Your task to perform on an android device: turn vacation reply on in the gmail app Image 0: 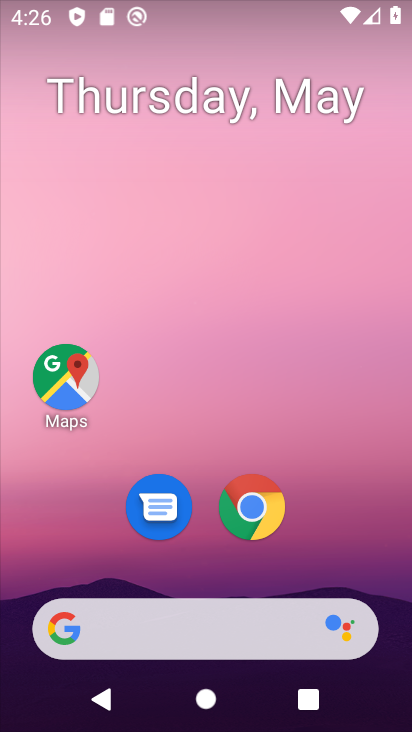
Step 0: drag from (336, 632) to (160, 192)
Your task to perform on an android device: turn vacation reply on in the gmail app Image 1: 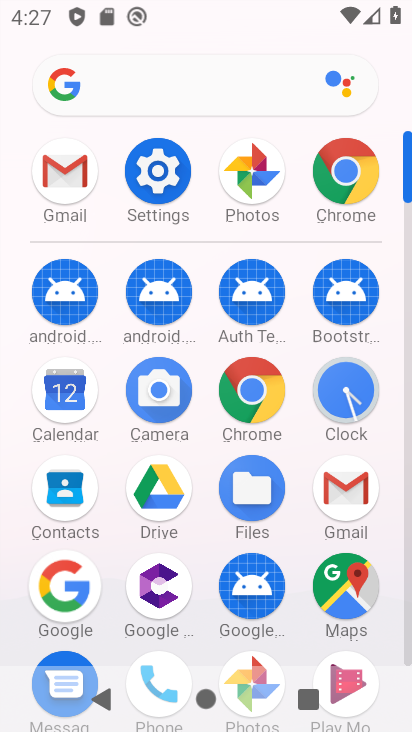
Step 1: click (347, 460)
Your task to perform on an android device: turn vacation reply on in the gmail app Image 2: 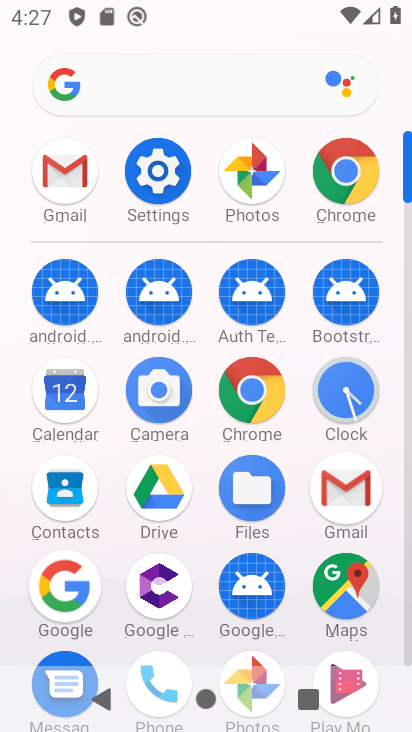
Step 2: click (345, 467)
Your task to perform on an android device: turn vacation reply on in the gmail app Image 3: 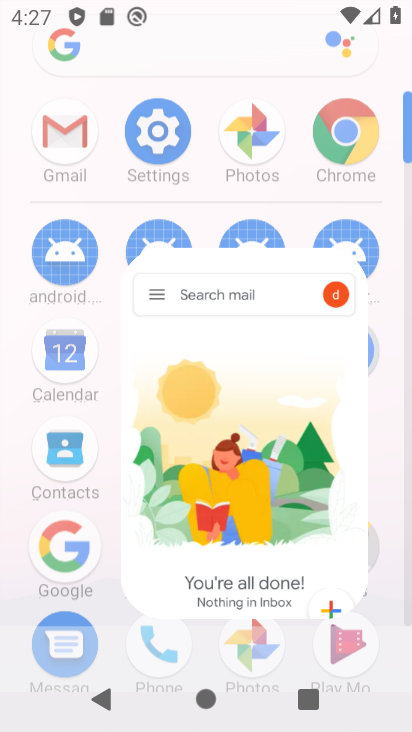
Step 3: click (345, 469)
Your task to perform on an android device: turn vacation reply on in the gmail app Image 4: 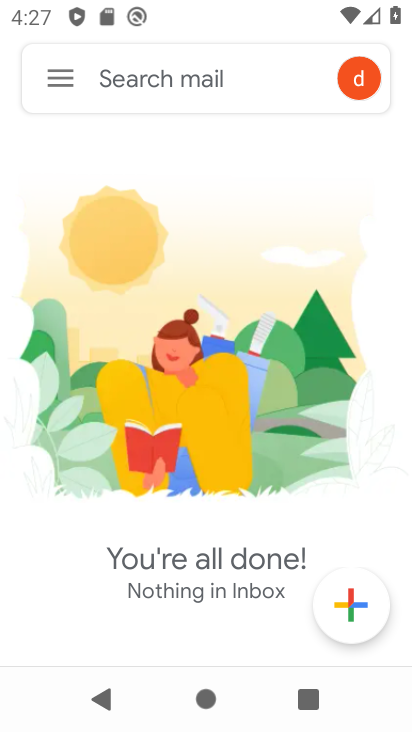
Step 4: click (344, 486)
Your task to perform on an android device: turn vacation reply on in the gmail app Image 5: 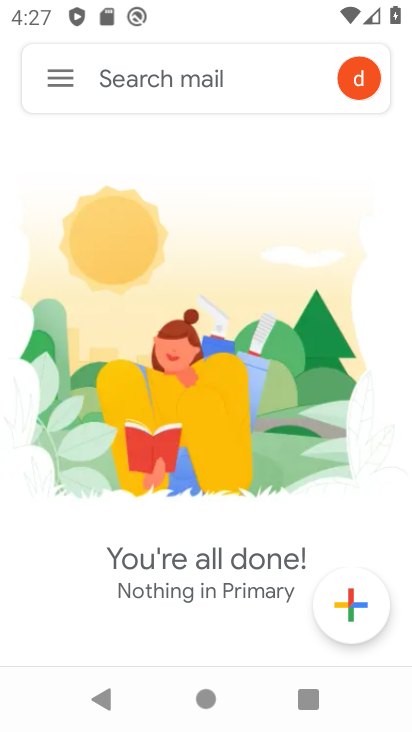
Step 5: click (51, 84)
Your task to perform on an android device: turn vacation reply on in the gmail app Image 6: 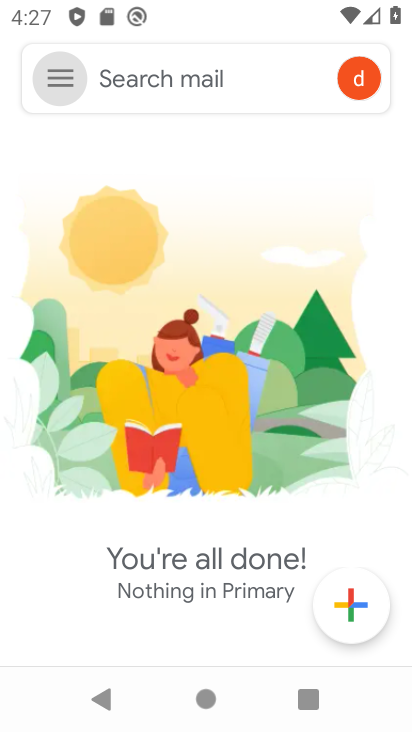
Step 6: click (52, 84)
Your task to perform on an android device: turn vacation reply on in the gmail app Image 7: 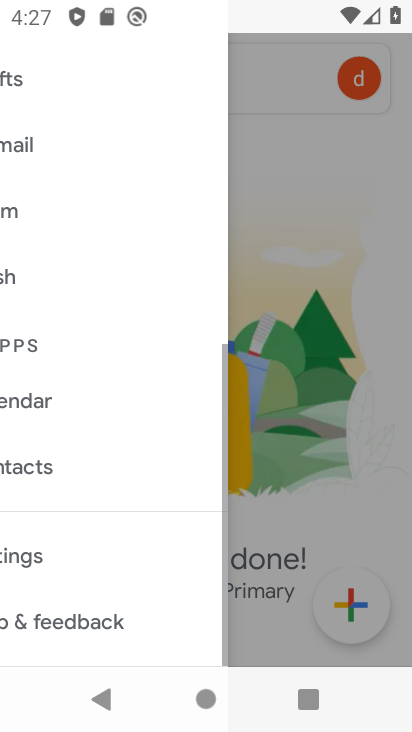
Step 7: click (52, 84)
Your task to perform on an android device: turn vacation reply on in the gmail app Image 8: 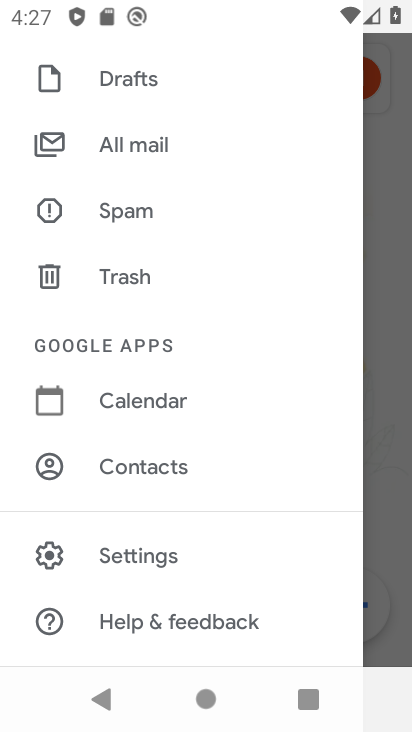
Step 8: click (146, 550)
Your task to perform on an android device: turn vacation reply on in the gmail app Image 9: 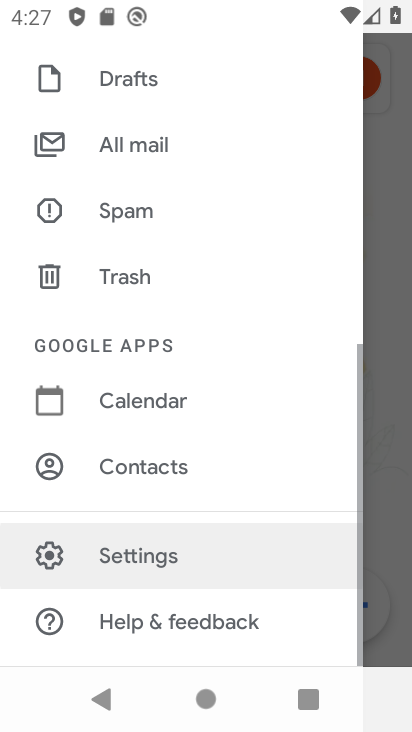
Step 9: click (145, 555)
Your task to perform on an android device: turn vacation reply on in the gmail app Image 10: 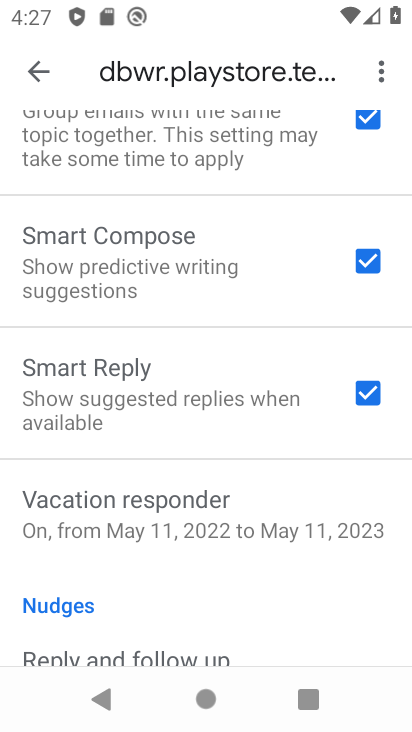
Step 10: click (234, 389)
Your task to perform on an android device: turn vacation reply on in the gmail app Image 11: 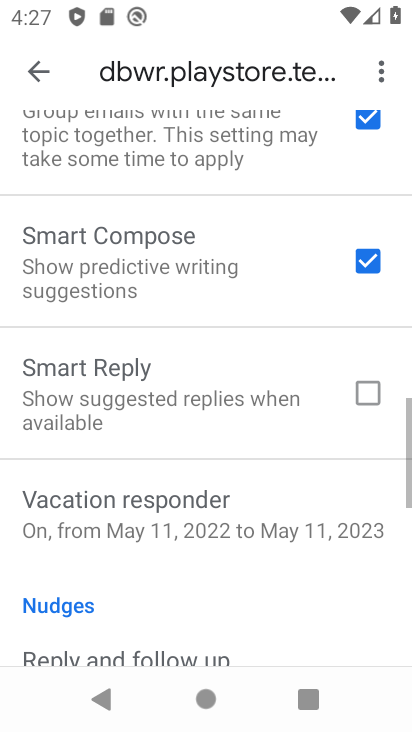
Step 11: click (236, 391)
Your task to perform on an android device: turn vacation reply on in the gmail app Image 12: 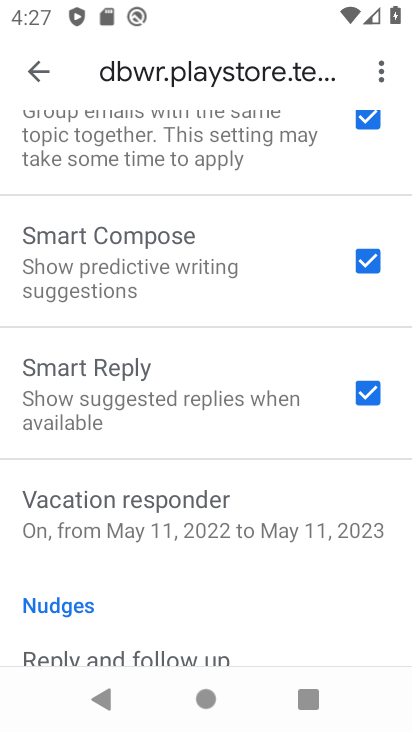
Step 12: task complete